Your task to perform on an android device: turn on improve location accuracy Image 0: 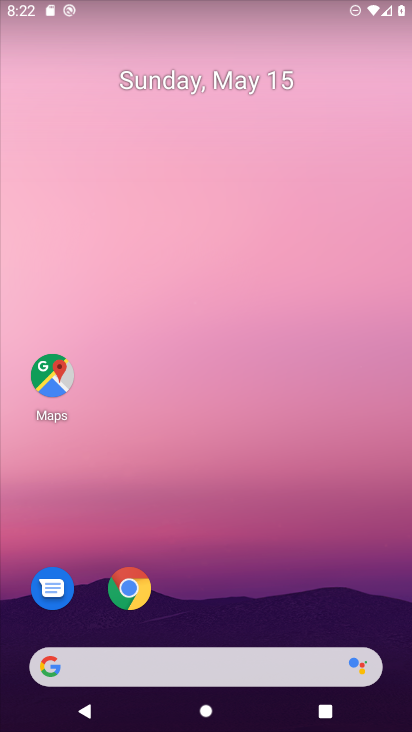
Step 0: drag from (222, 619) to (240, 229)
Your task to perform on an android device: turn on improve location accuracy Image 1: 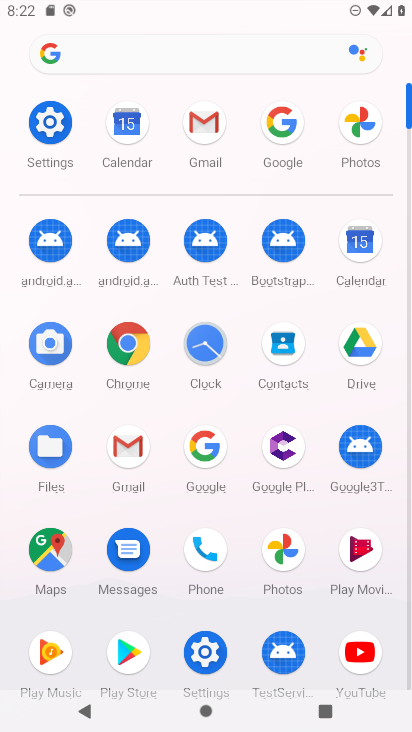
Step 1: click (43, 111)
Your task to perform on an android device: turn on improve location accuracy Image 2: 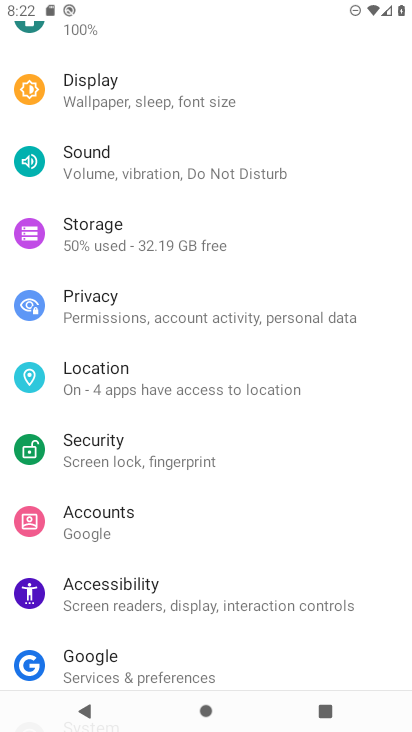
Step 2: click (150, 374)
Your task to perform on an android device: turn on improve location accuracy Image 3: 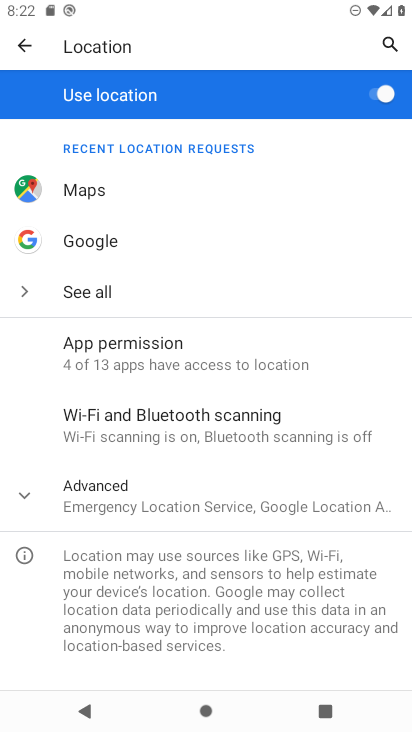
Step 3: click (79, 493)
Your task to perform on an android device: turn on improve location accuracy Image 4: 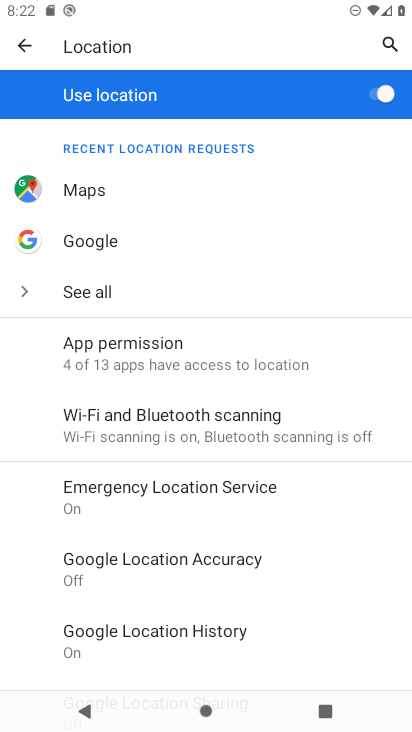
Step 4: click (170, 565)
Your task to perform on an android device: turn on improve location accuracy Image 5: 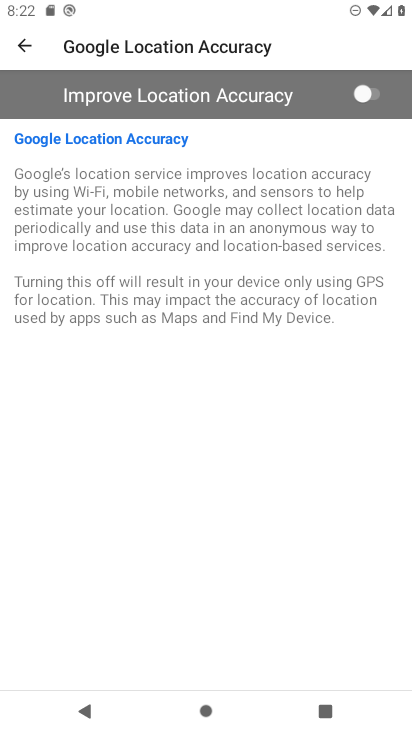
Step 5: click (369, 90)
Your task to perform on an android device: turn on improve location accuracy Image 6: 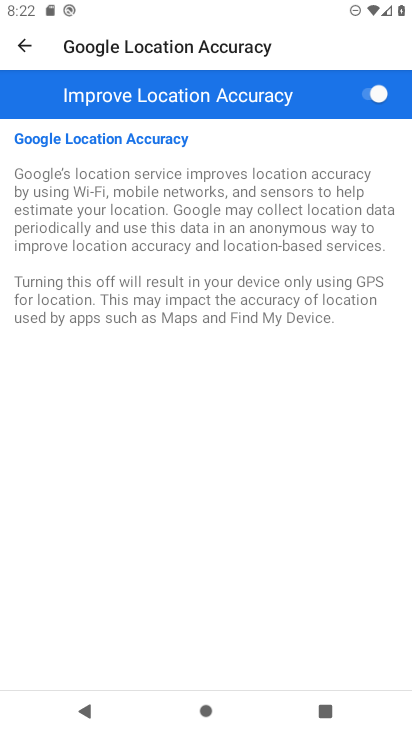
Step 6: task complete